Your task to perform on an android device: toggle pop-ups in chrome Image 0: 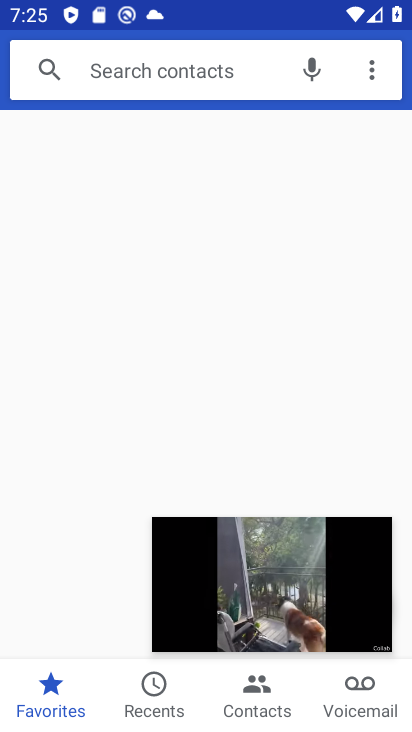
Step 0: drag from (381, 588) to (384, 189)
Your task to perform on an android device: toggle pop-ups in chrome Image 1: 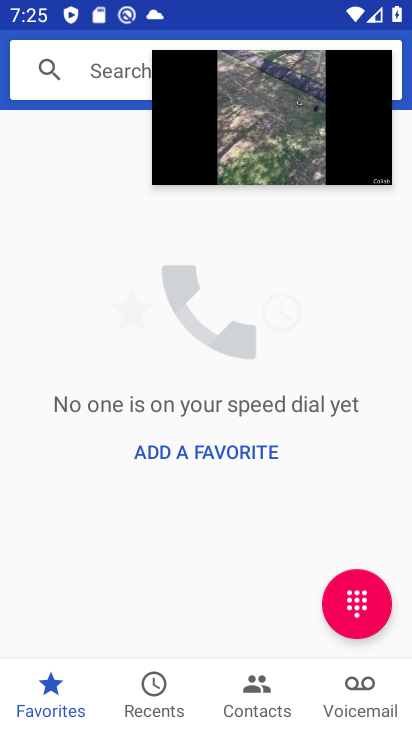
Step 1: press home button
Your task to perform on an android device: toggle pop-ups in chrome Image 2: 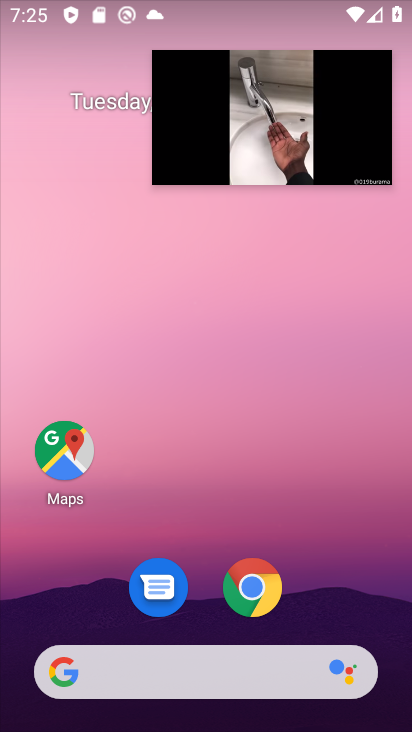
Step 2: drag from (359, 586) to (360, 192)
Your task to perform on an android device: toggle pop-ups in chrome Image 3: 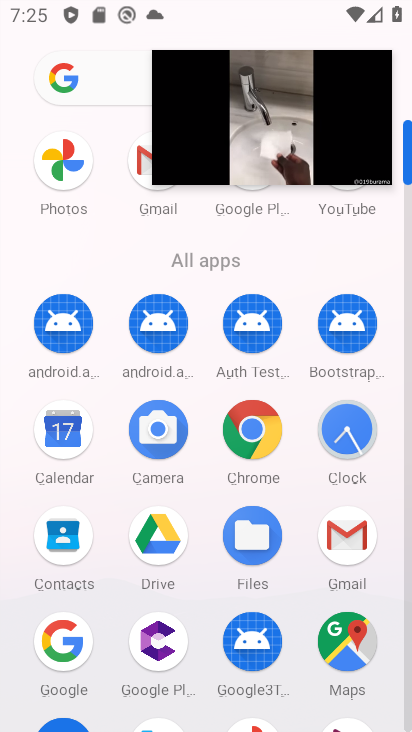
Step 3: click (256, 442)
Your task to perform on an android device: toggle pop-ups in chrome Image 4: 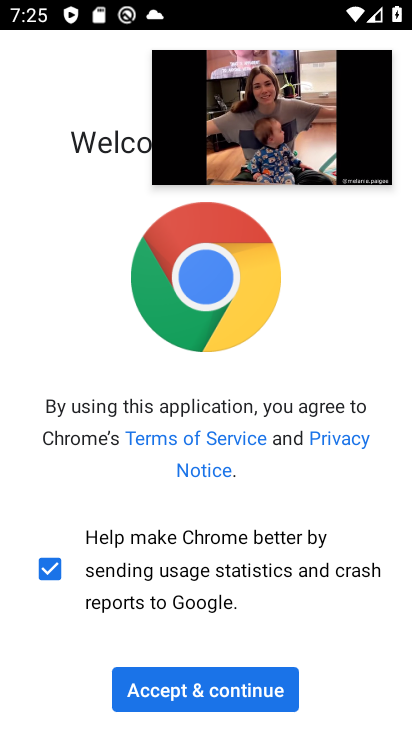
Step 4: click (271, 682)
Your task to perform on an android device: toggle pop-ups in chrome Image 5: 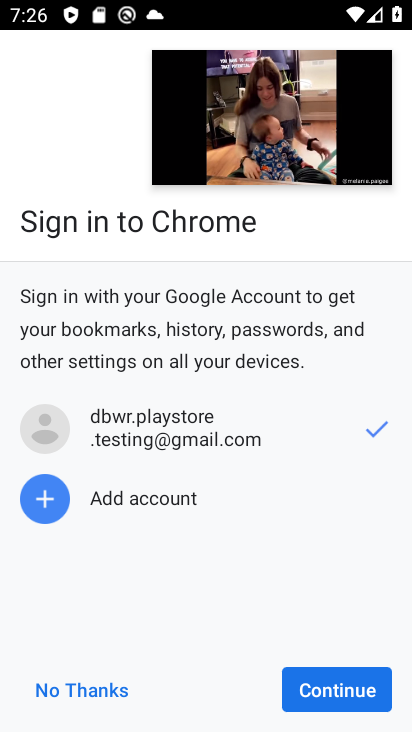
Step 5: click (328, 692)
Your task to perform on an android device: toggle pop-ups in chrome Image 6: 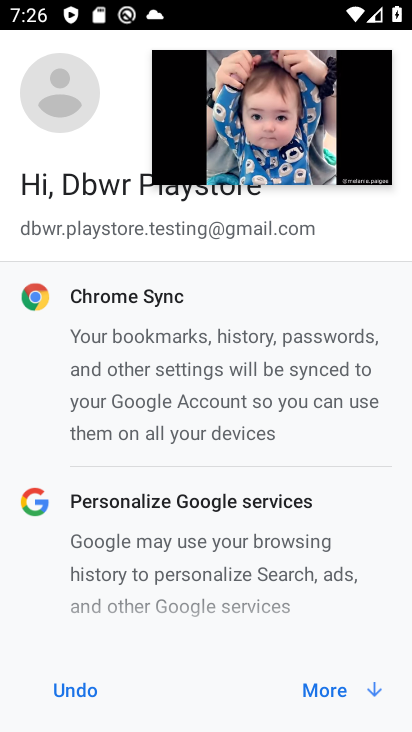
Step 6: click (328, 692)
Your task to perform on an android device: toggle pop-ups in chrome Image 7: 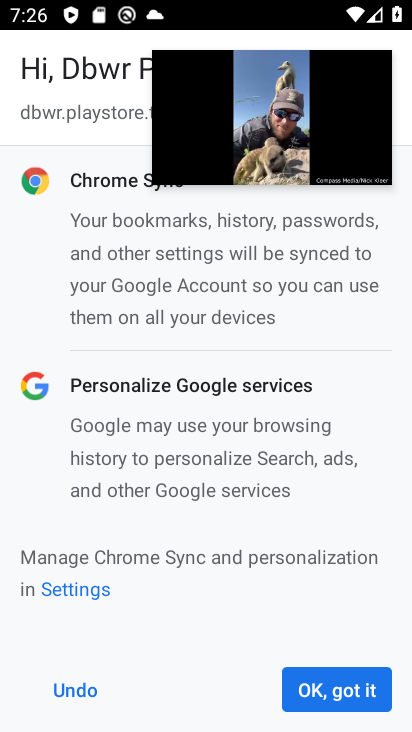
Step 7: click (328, 692)
Your task to perform on an android device: toggle pop-ups in chrome Image 8: 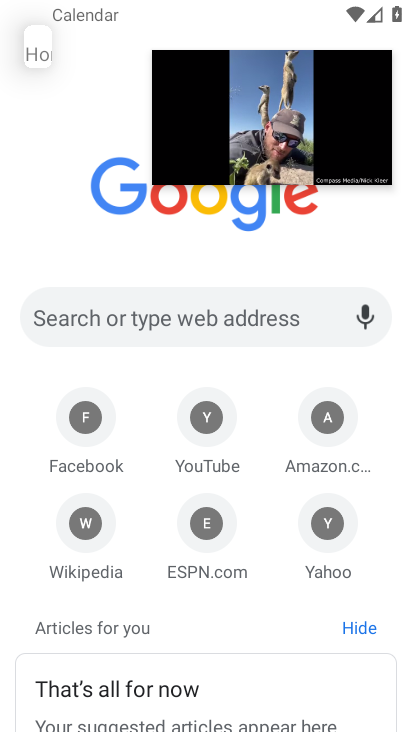
Step 8: drag from (222, 305) to (191, 665)
Your task to perform on an android device: toggle pop-ups in chrome Image 9: 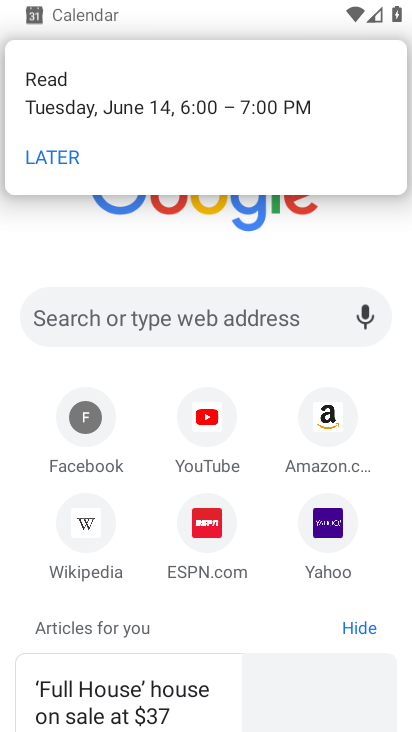
Step 9: click (48, 162)
Your task to perform on an android device: toggle pop-ups in chrome Image 10: 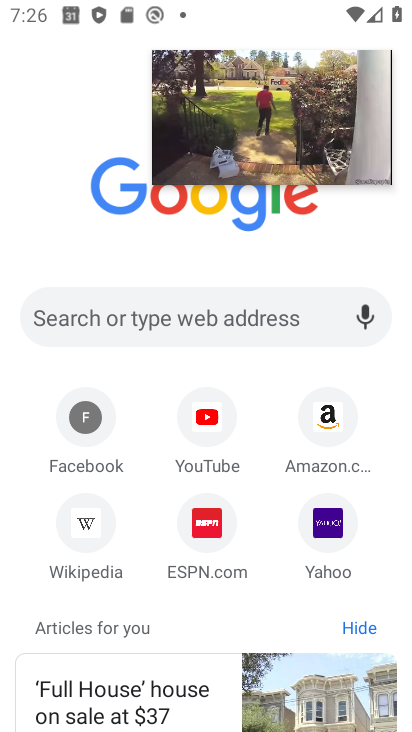
Step 10: drag from (286, 83) to (196, 730)
Your task to perform on an android device: toggle pop-ups in chrome Image 11: 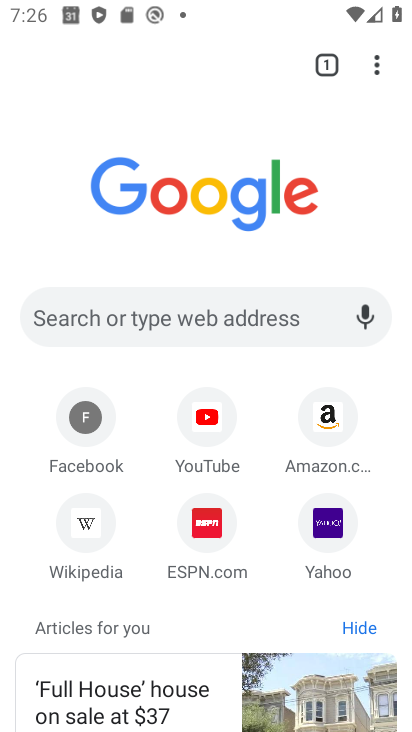
Step 11: click (377, 74)
Your task to perform on an android device: toggle pop-ups in chrome Image 12: 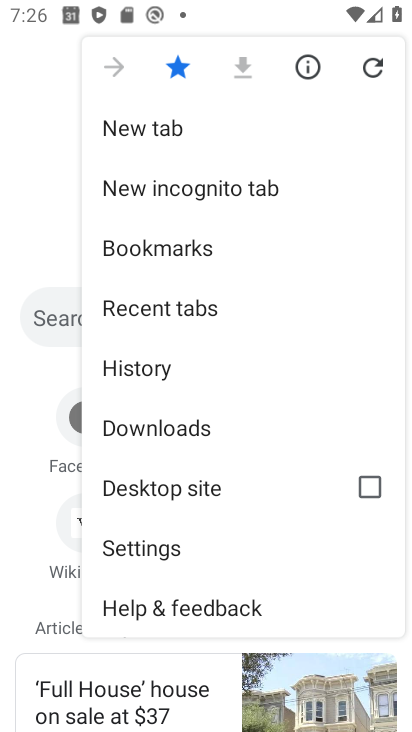
Step 12: drag from (291, 536) to (310, 395)
Your task to perform on an android device: toggle pop-ups in chrome Image 13: 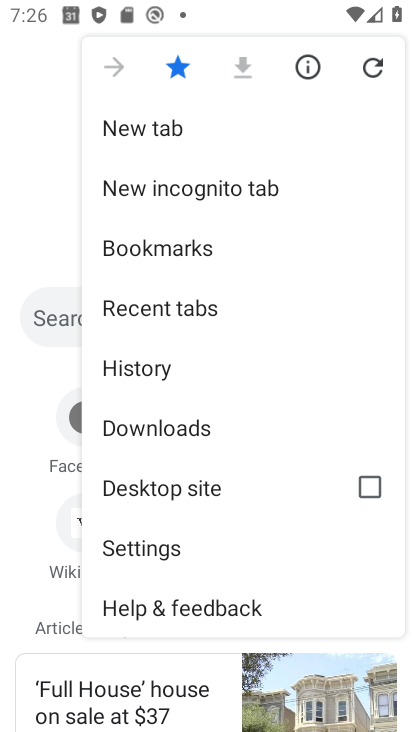
Step 13: click (189, 555)
Your task to perform on an android device: toggle pop-ups in chrome Image 14: 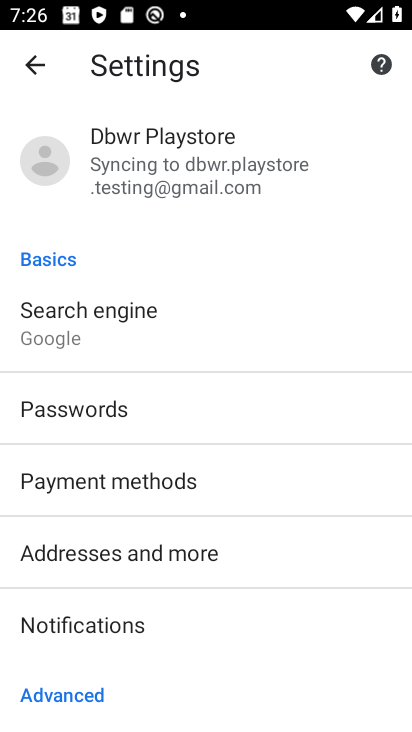
Step 14: drag from (289, 620) to (313, 469)
Your task to perform on an android device: toggle pop-ups in chrome Image 15: 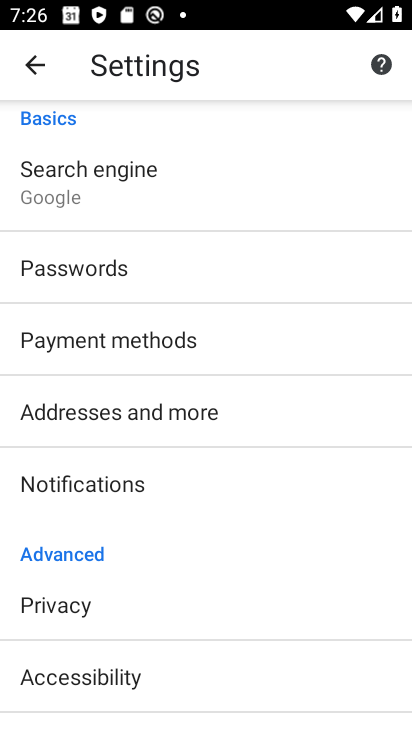
Step 15: drag from (310, 669) to (318, 515)
Your task to perform on an android device: toggle pop-ups in chrome Image 16: 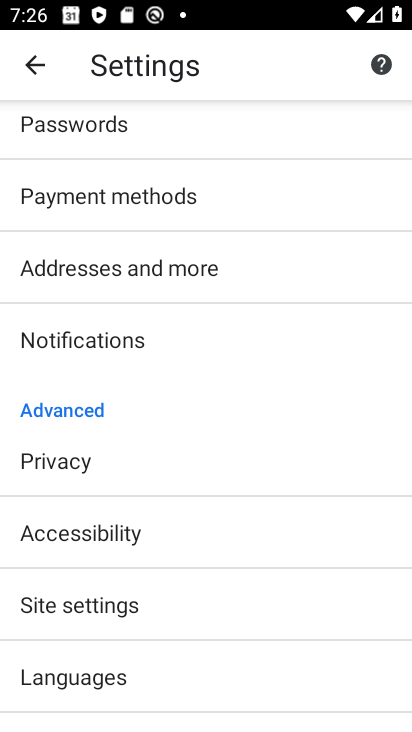
Step 16: drag from (307, 658) to (305, 527)
Your task to perform on an android device: toggle pop-ups in chrome Image 17: 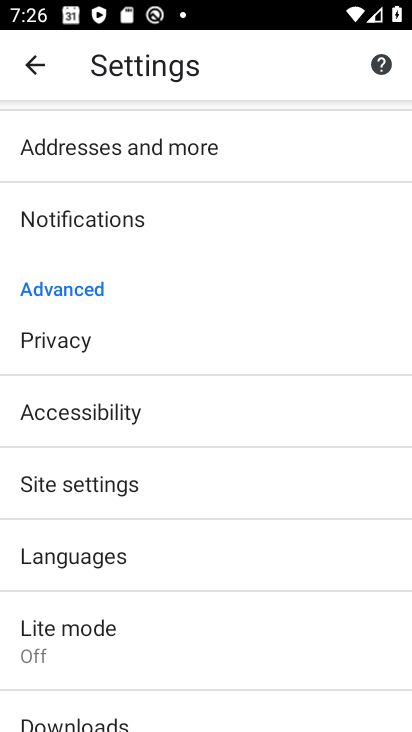
Step 17: drag from (303, 670) to (307, 549)
Your task to perform on an android device: toggle pop-ups in chrome Image 18: 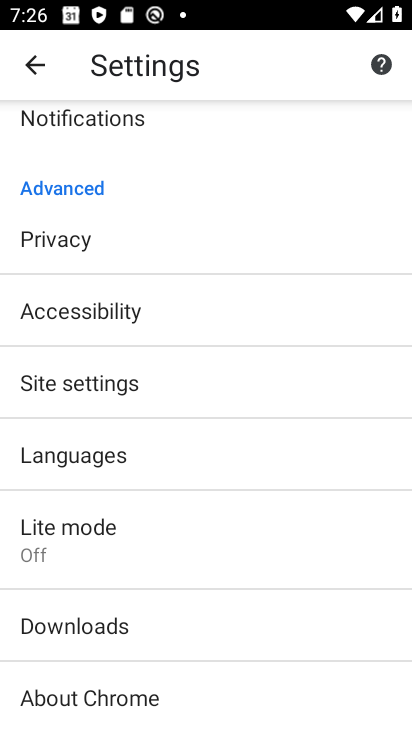
Step 18: drag from (314, 694) to (317, 561)
Your task to perform on an android device: toggle pop-ups in chrome Image 19: 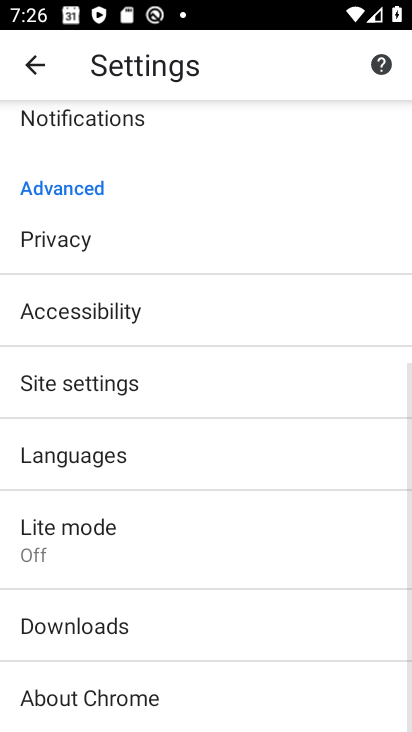
Step 19: drag from (321, 410) to (318, 506)
Your task to perform on an android device: toggle pop-ups in chrome Image 20: 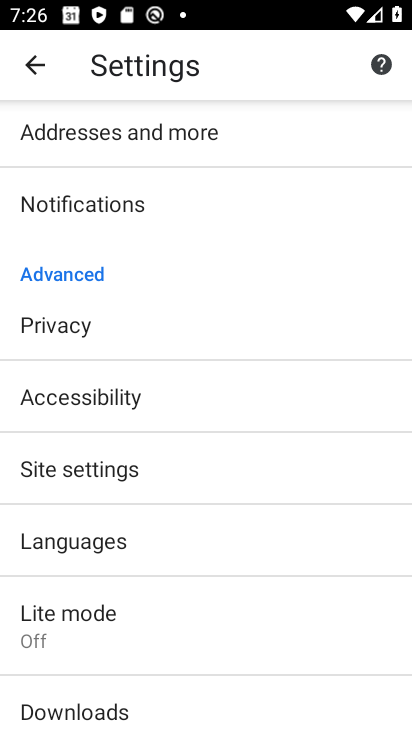
Step 20: click (290, 469)
Your task to perform on an android device: toggle pop-ups in chrome Image 21: 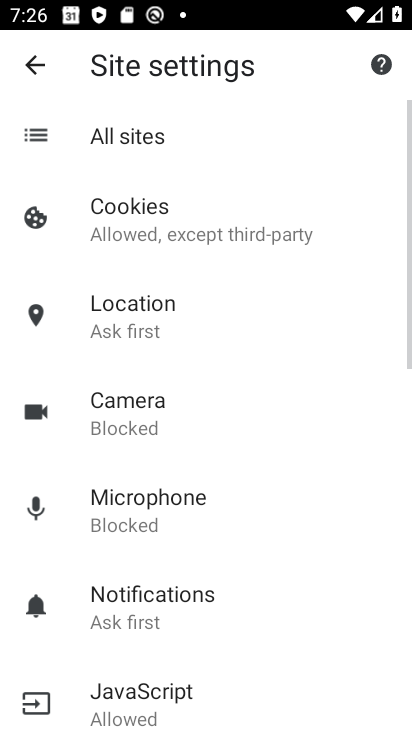
Step 21: drag from (310, 547) to (315, 499)
Your task to perform on an android device: toggle pop-ups in chrome Image 22: 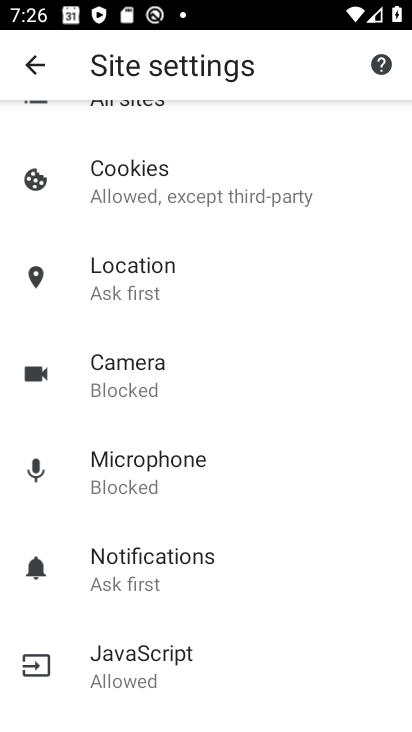
Step 22: drag from (317, 620) to (318, 500)
Your task to perform on an android device: toggle pop-ups in chrome Image 23: 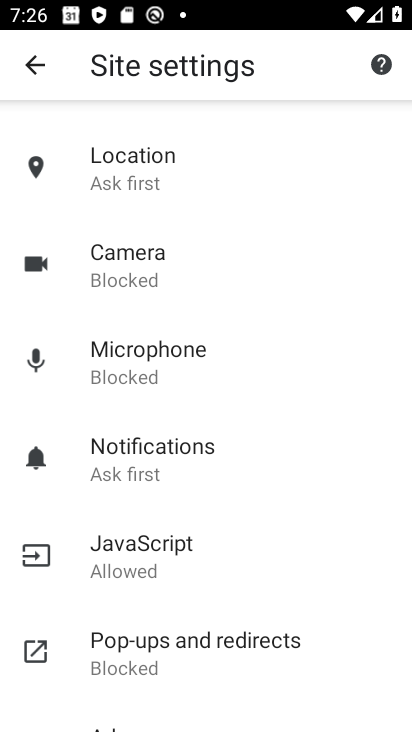
Step 23: drag from (342, 663) to (352, 524)
Your task to perform on an android device: toggle pop-ups in chrome Image 24: 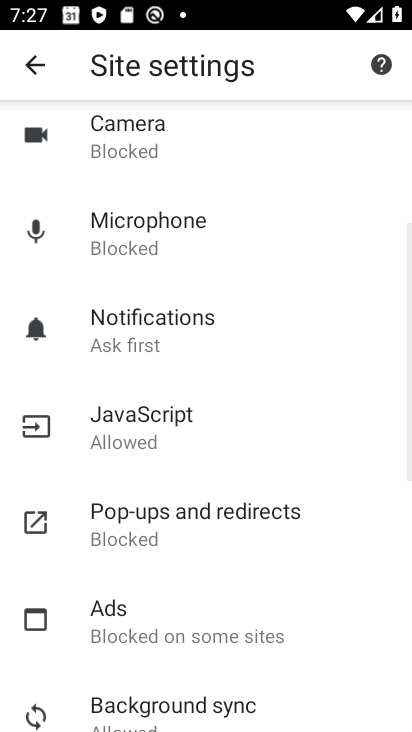
Step 24: drag from (346, 647) to (346, 545)
Your task to perform on an android device: toggle pop-ups in chrome Image 25: 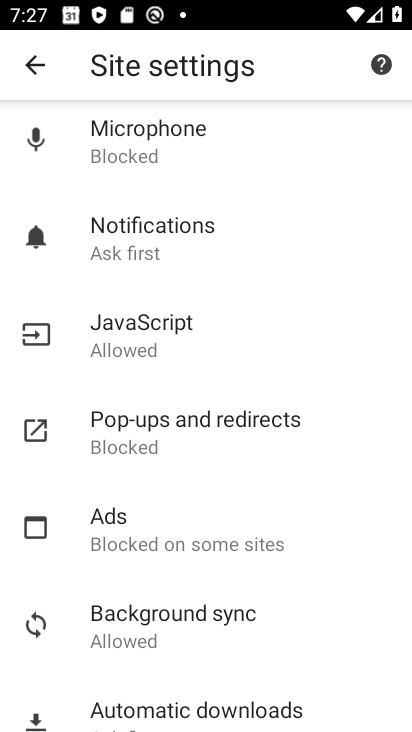
Step 25: click (279, 435)
Your task to perform on an android device: toggle pop-ups in chrome Image 26: 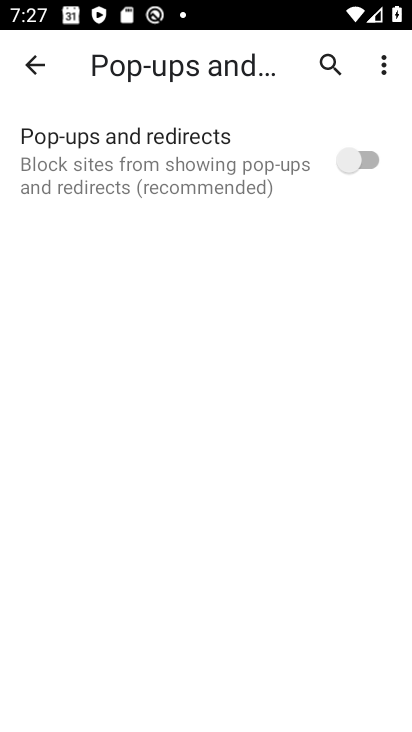
Step 26: click (374, 155)
Your task to perform on an android device: toggle pop-ups in chrome Image 27: 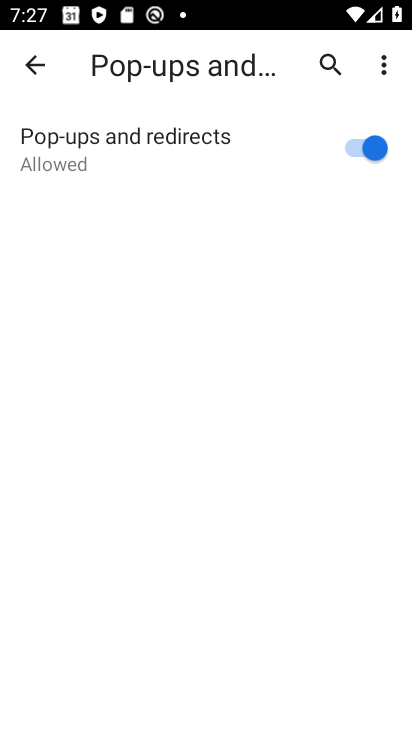
Step 27: task complete